Your task to perform on an android device: check data usage Image 0: 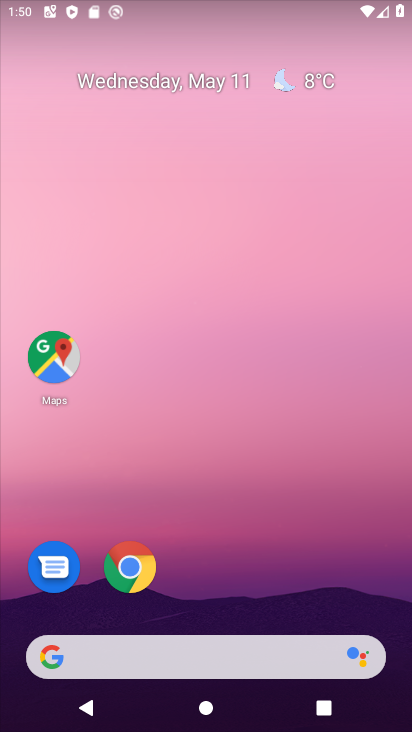
Step 0: drag from (326, 8) to (409, 348)
Your task to perform on an android device: check data usage Image 1: 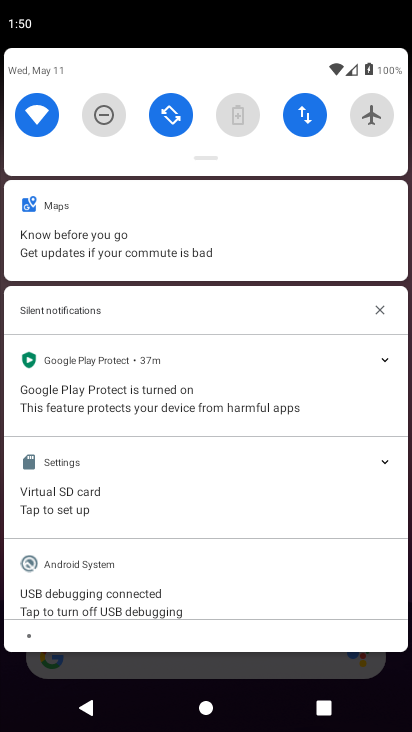
Step 1: click (305, 110)
Your task to perform on an android device: check data usage Image 2: 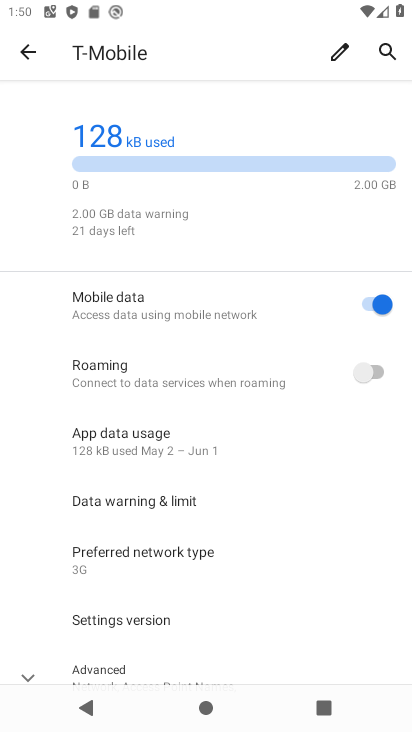
Step 2: task complete